Your task to perform on an android device: star an email in the gmail app Image 0: 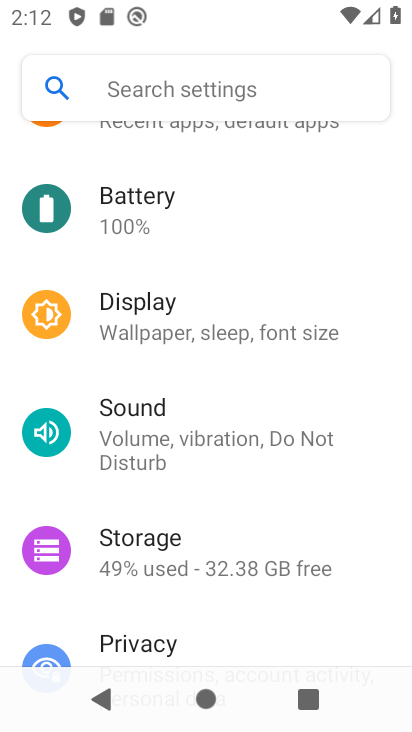
Step 0: press home button
Your task to perform on an android device: star an email in the gmail app Image 1: 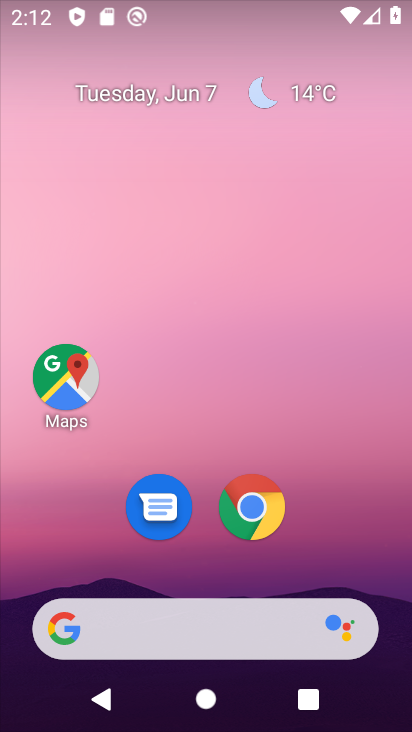
Step 1: drag from (353, 539) to (353, 129)
Your task to perform on an android device: star an email in the gmail app Image 2: 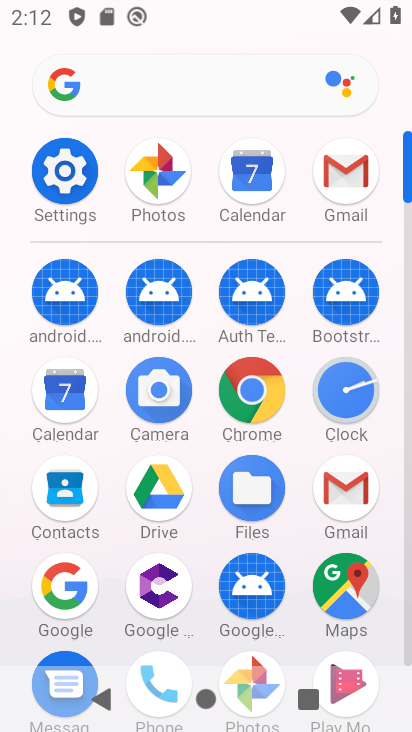
Step 2: click (346, 178)
Your task to perform on an android device: star an email in the gmail app Image 3: 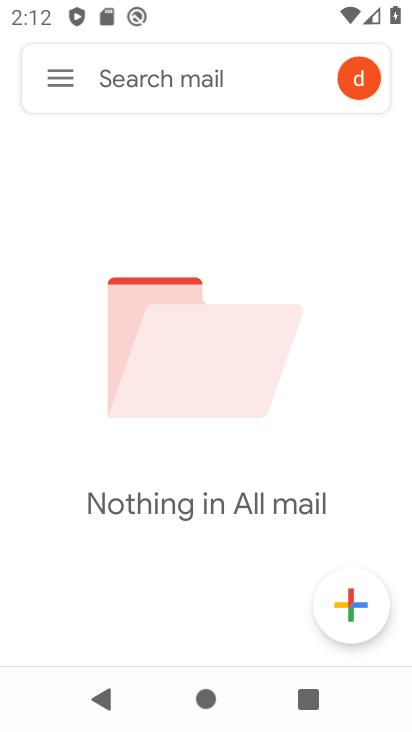
Step 3: click (54, 81)
Your task to perform on an android device: star an email in the gmail app Image 4: 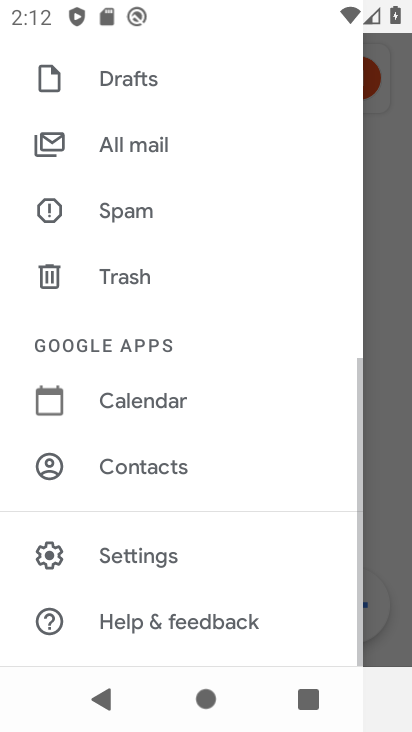
Step 4: click (378, 270)
Your task to perform on an android device: star an email in the gmail app Image 5: 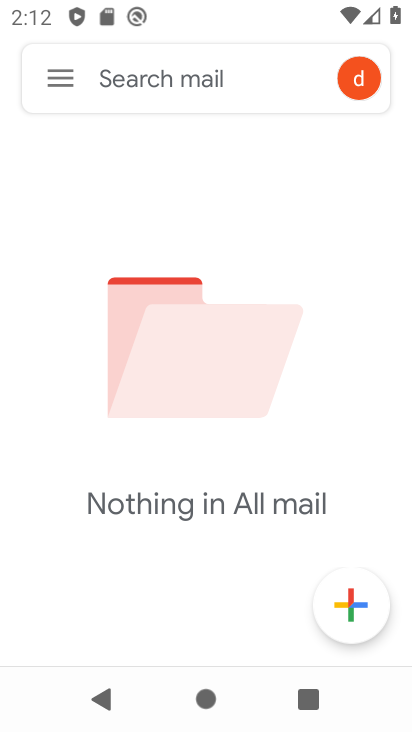
Step 5: task complete